Your task to perform on an android device: Open notification settings Image 0: 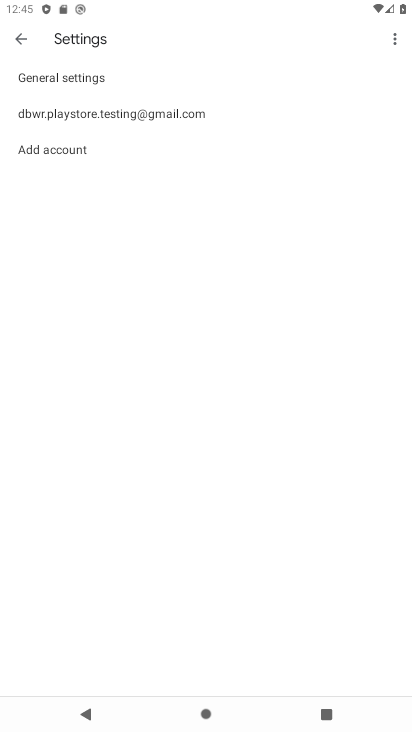
Step 0: press home button
Your task to perform on an android device: Open notification settings Image 1: 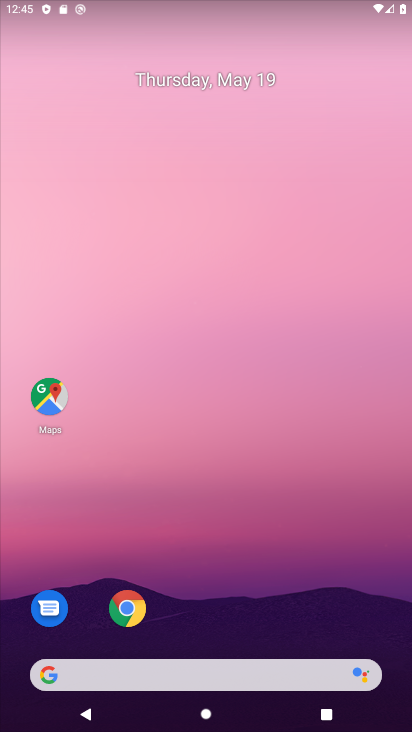
Step 1: drag from (247, 561) to (349, 109)
Your task to perform on an android device: Open notification settings Image 2: 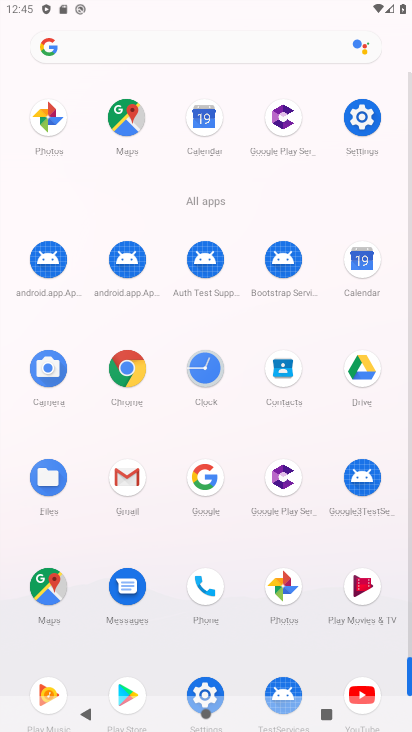
Step 2: click (366, 131)
Your task to perform on an android device: Open notification settings Image 3: 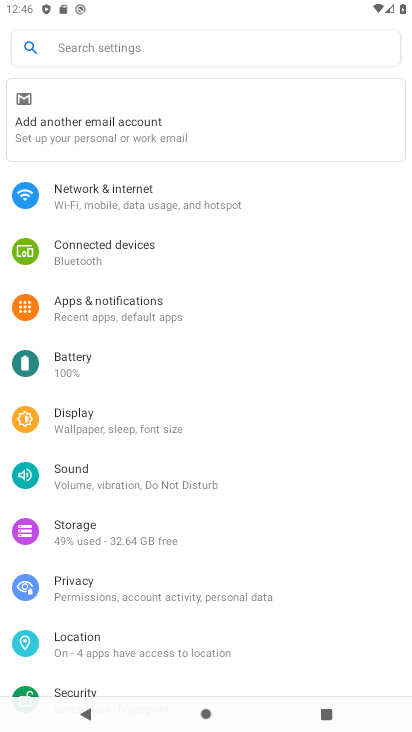
Step 3: click (164, 309)
Your task to perform on an android device: Open notification settings Image 4: 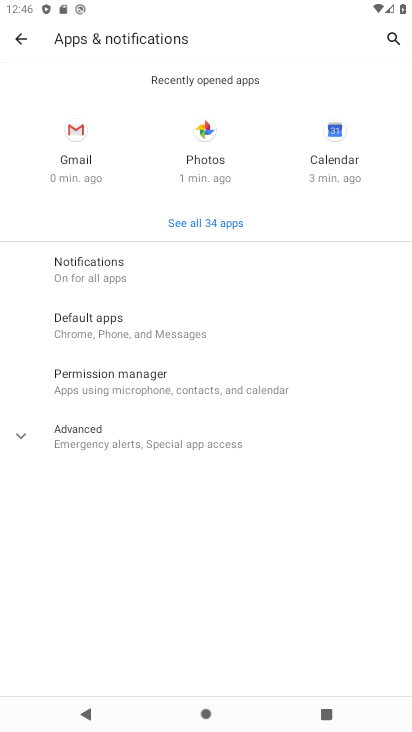
Step 4: click (118, 276)
Your task to perform on an android device: Open notification settings Image 5: 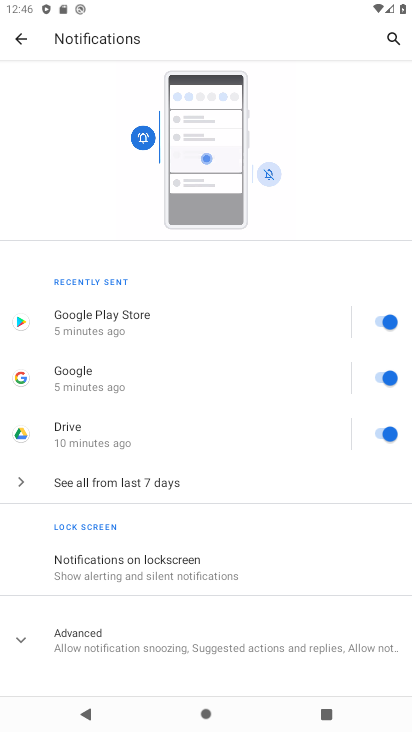
Step 5: task complete